Your task to perform on an android device: turn off improve location accuracy Image 0: 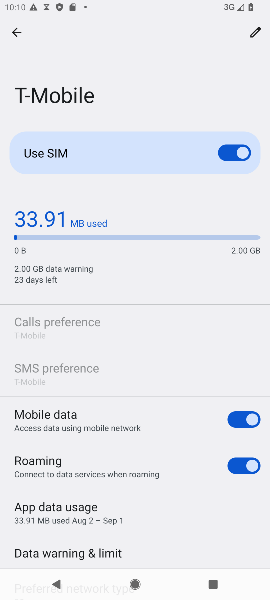
Step 0: press back button
Your task to perform on an android device: turn off improve location accuracy Image 1: 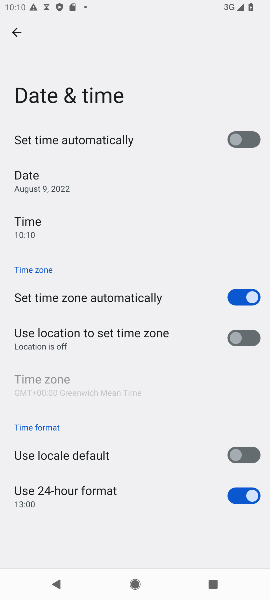
Step 1: press home button
Your task to perform on an android device: turn off improve location accuracy Image 2: 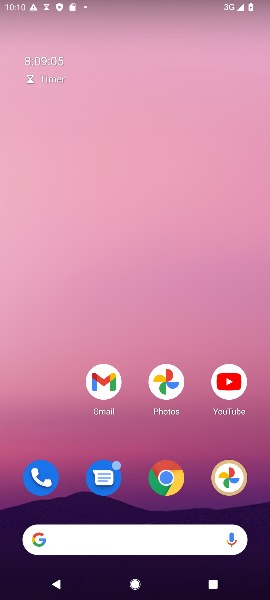
Step 2: drag from (201, 458) to (188, 151)
Your task to perform on an android device: turn off improve location accuracy Image 3: 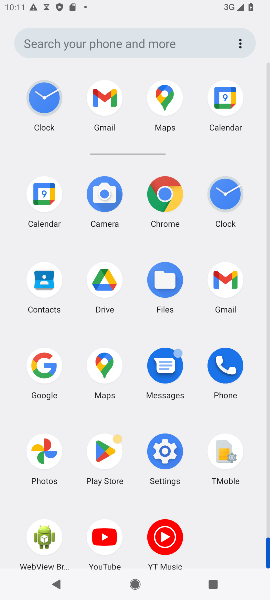
Step 3: click (163, 450)
Your task to perform on an android device: turn off improve location accuracy Image 4: 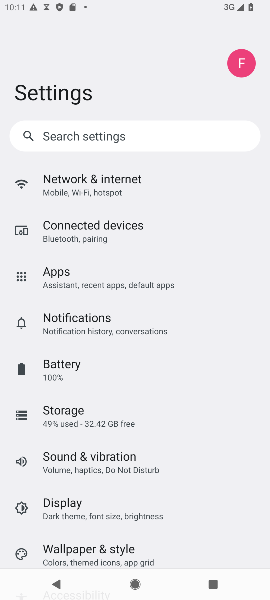
Step 4: drag from (190, 536) to (136, 233)
Your task to perform on an android device: turn off improve location accuracy Image 5: 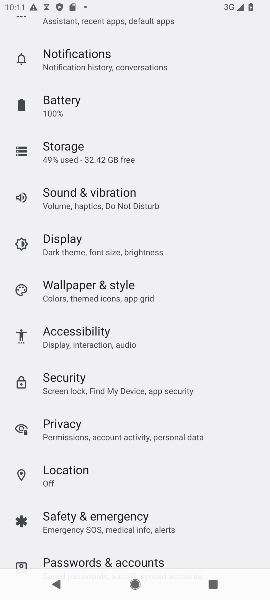
Step 5: drag from (136, 233) to (140, 106)
Your task to perform on an android device: turn off improve location accuracy Image 6: 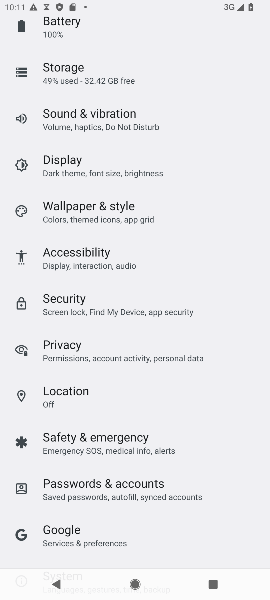
Step 6: click (132, 394)
Your task to perform on an android device: turn off improve location accuracy Image 7: 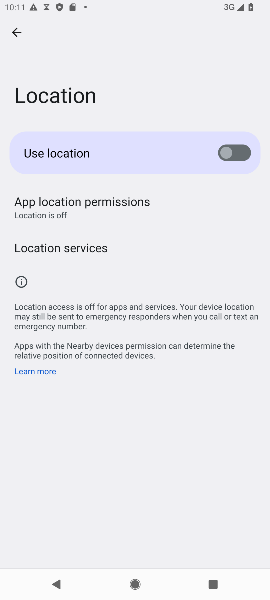
Step 7: click (170, 255)
Your task to perform on an android device: turn off improve location accuracy Image 8: 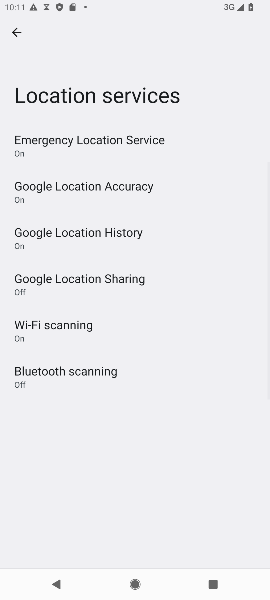
Step 8: click (175, 181)
Your task to perform on an android device: turn off improve location accuracy Image 9: 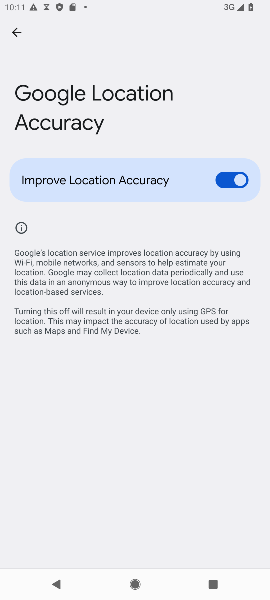
Step 9: click (236, 172)
Your task to perform on an android device: turn off improve location accuracy Image 10: 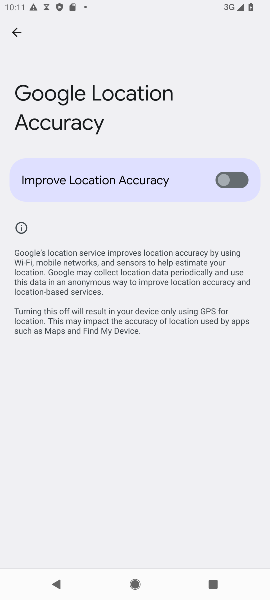
Step 10: task complete